Your task to perform on an android device: Show me popular videos on Youtube Image 0: 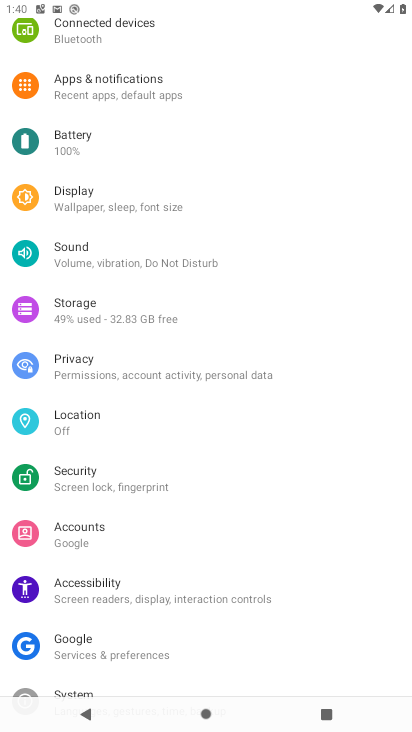
Step 0: press home button
Your task to perform on an android device: Show me popular videos on Youtube Image 1: 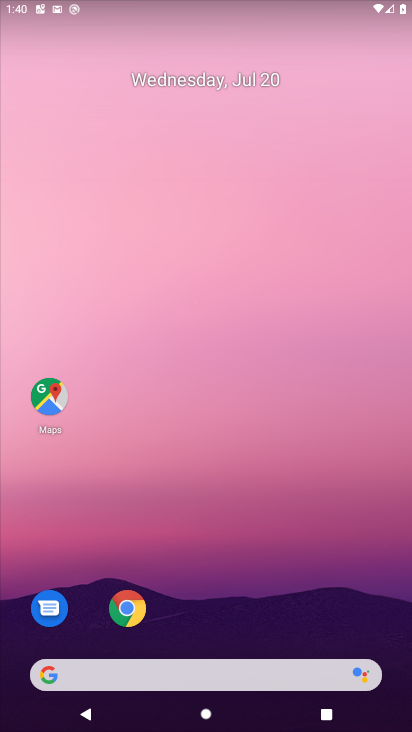
Step 1: drag from (186, 645) to (254, 197)
Your task to perform on an android device: Show me popular videos on Youtube Image 2: 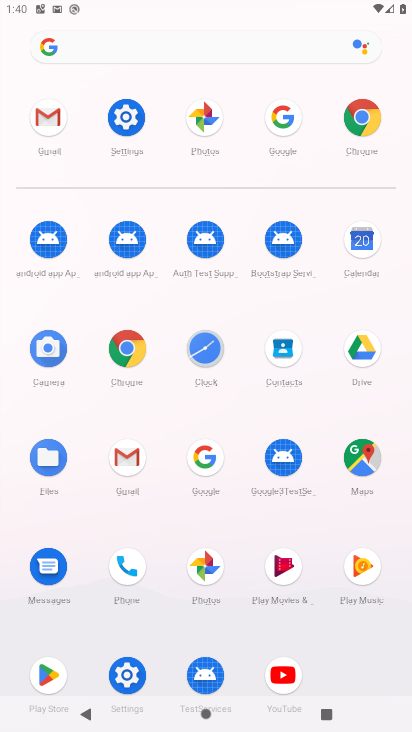
Step 2: click (283, 677)
Your task to perform on an android device: Show me popular videos on Youtube Image 3: 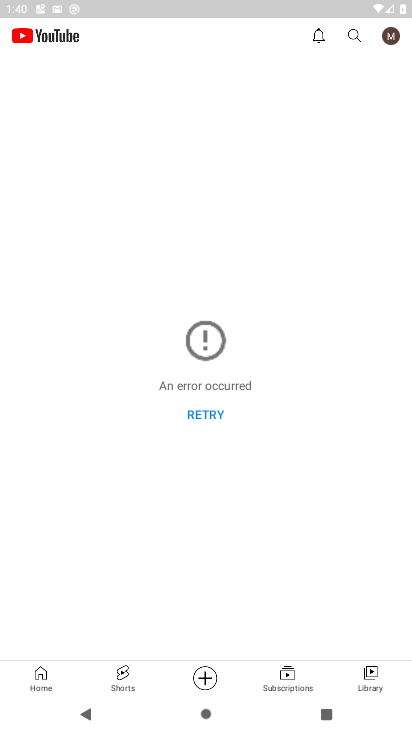
Step 3: click (39, 677)
Your task to perform on an android device: Show me popular videos on Youtube Image 4: 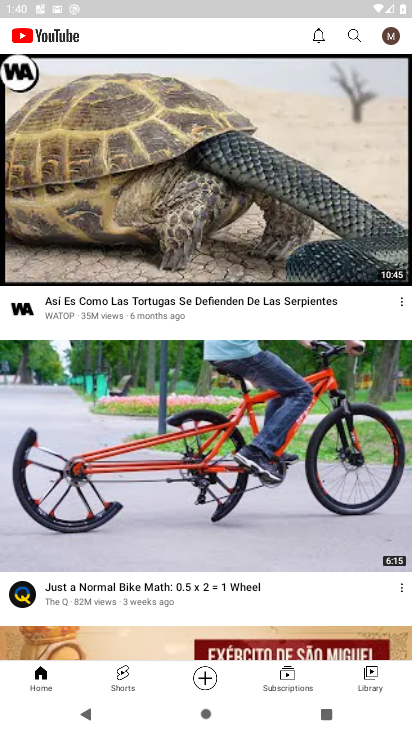
Step 4: task complete